Your task to perform on an android device: clear all cookies in the chrome app Image 0: 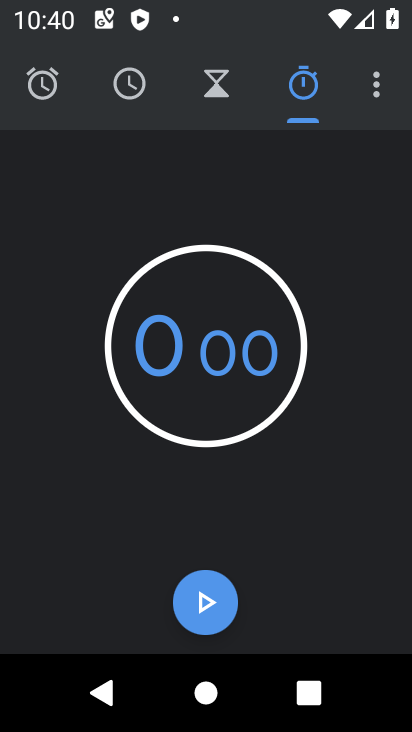
Step 0: press home button
Your task to perform on an android device: clear all cookies in the chrome app Image 1: 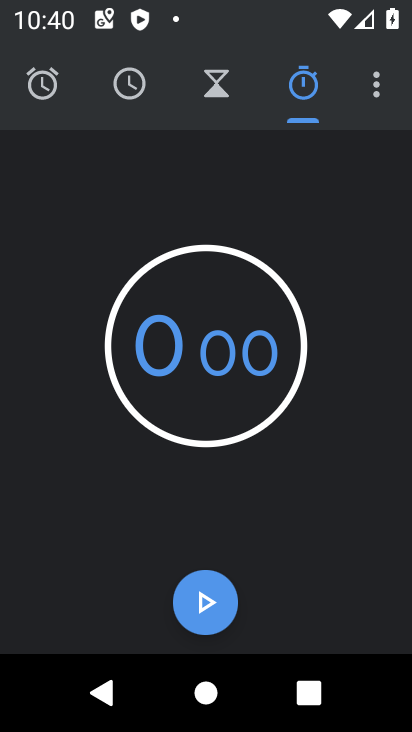
Step 1: click (319, 176)
Your task to perform on an android device: clear all cookies in the chrome app Image 2: 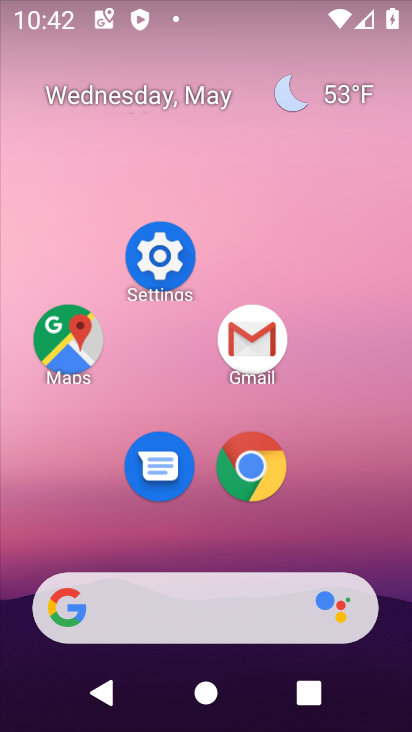
Step 2: click (253, 470)
Your task to perform on an android device: clear all cookies in the chrome app Image 3: 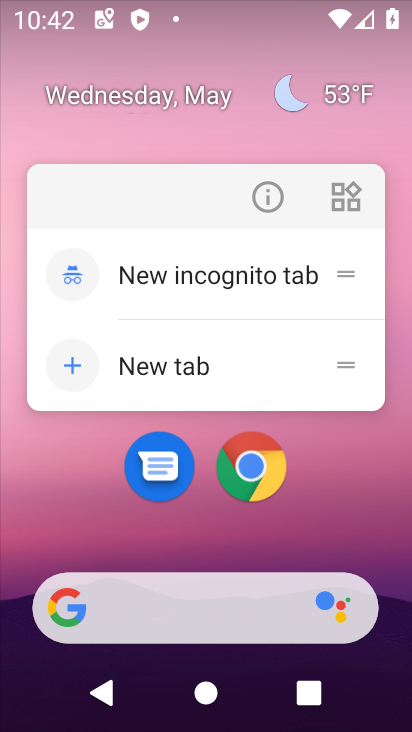
Step 3: click (247, 198)
Your task to perform on an android device: clear all cookies in the chrome app Image 4: 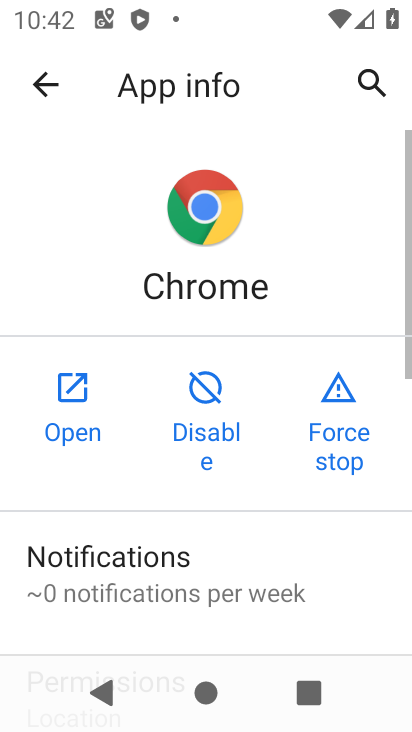
Step 4: click (72, 395)
Your task to perform on an android device: clear all cookies in the chrome app Image 5: 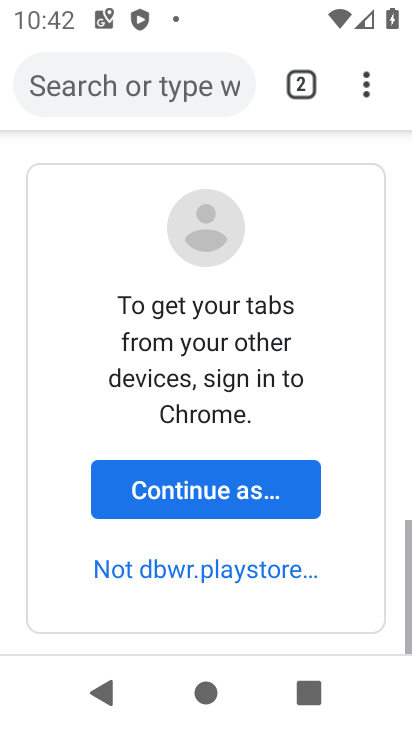
Step 5: click (372, 84)
Your task to perform on an android device: clear all cookies in the chrome app Image 6: 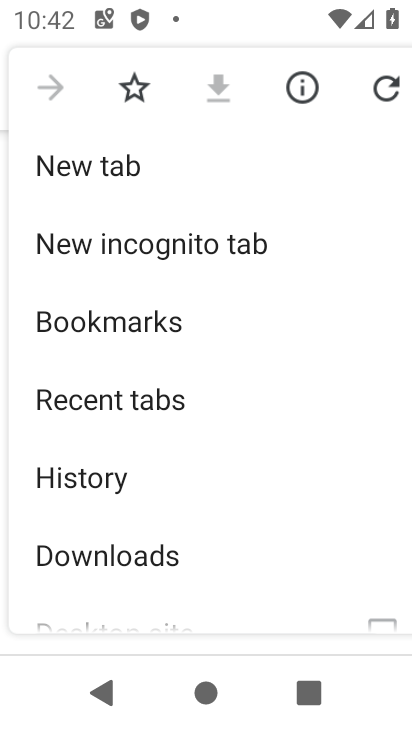
Step 6: click (122, 493)
Your task to perform on an android device: clear all cookies in the chrome app Image 7: 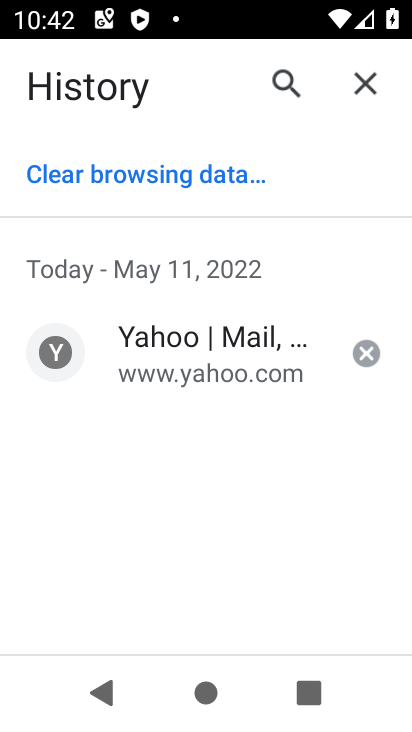
Step 7: click (116, 184)
Your task to perform on an android device: clear all cookies in the chrome app Image 8: 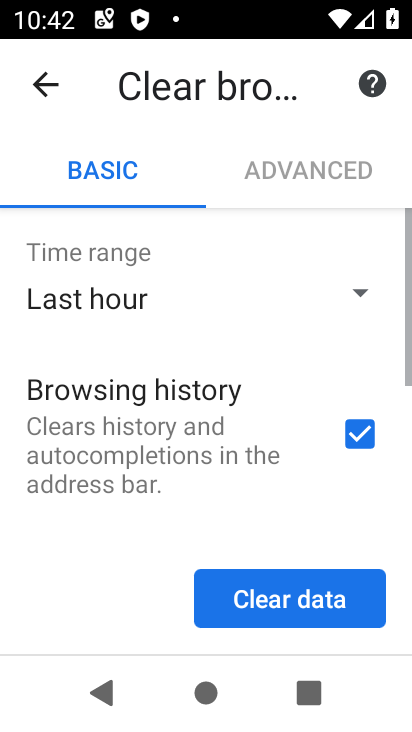
Step 8: drag from (320, 411) to (386, 116)
Your task to perform on an android device: clear all cookies in the chrome app Image 9: 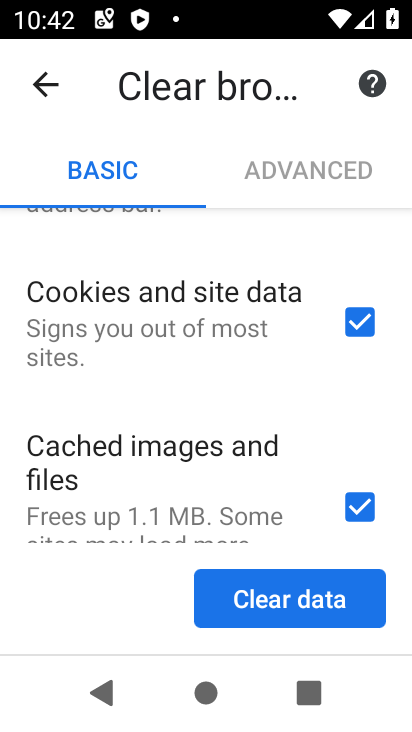
Step 9: drag from (331, 247) to (304, 430)
Your task to perform on an android device: clear all cookies in the chrome app Image 10: 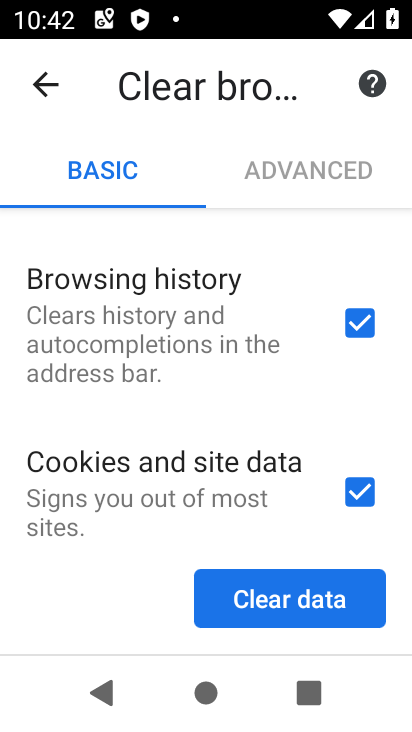
Step 10: click (355, 339)
Your task to perform on an android device: clear all cookies in the chrome app Image 11: 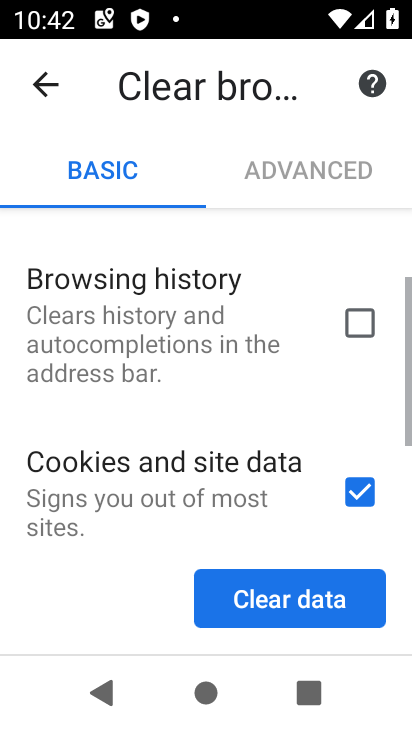
Step 11: click (281, 629)
Your task to perform on an android device: clear all cookies in the chrome app Image 12: 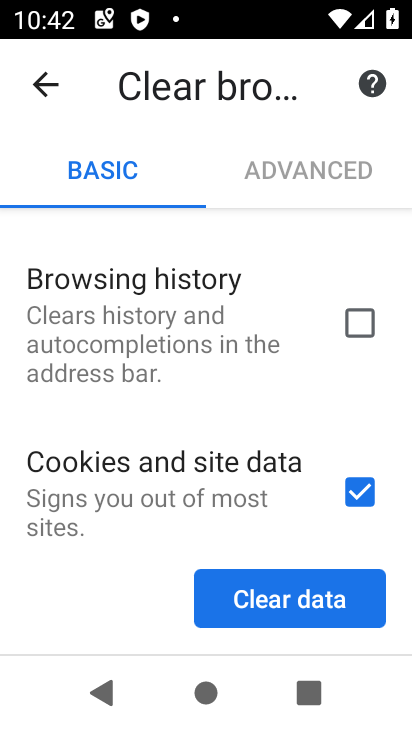
Step 12: click (262, 585)
Your task to perform on an android device: clear all cookies in the chrome app Image 13: 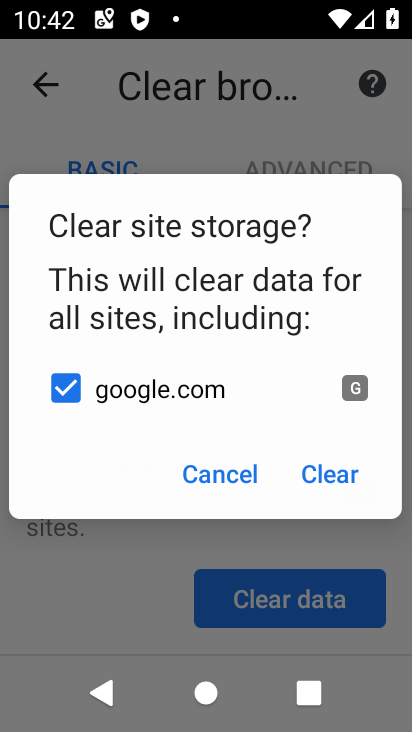
Step 13: click (281, 587)
Your task to perform on an android device: clear all cookies in the chrome app Image 14: 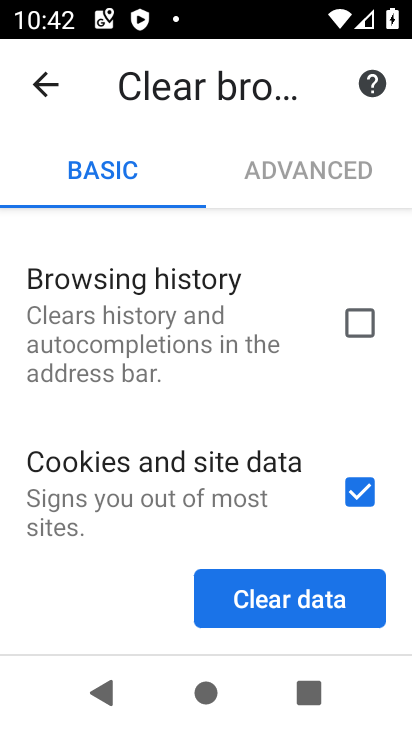
Step 14: click (284, 597)
Your task to perform on an android device: clear all cookies in the chrome app Image 15: 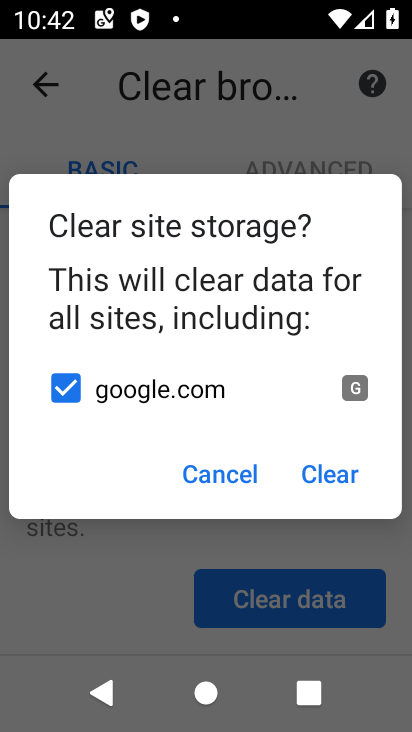
Step 15: click (324, 479)
Your task to perform on an android device: clear all cookies in the chrome app Image 16: 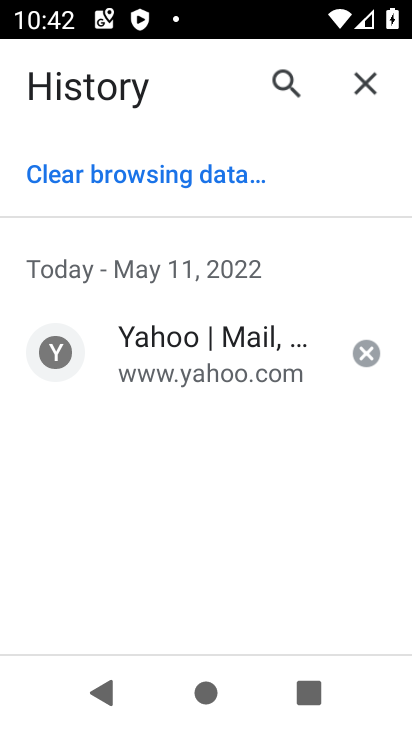
Step 16: task complete